Your task to perform on an android device: open wifi settings Image 0: 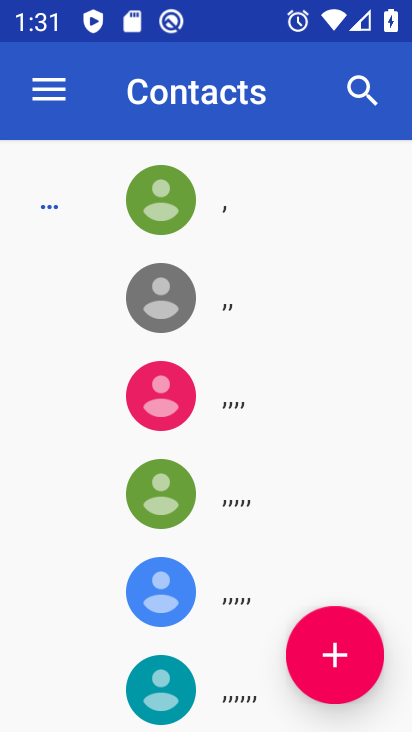
Step 0: press home button
Your task to perform on an android device: open wifi settings Image 1: 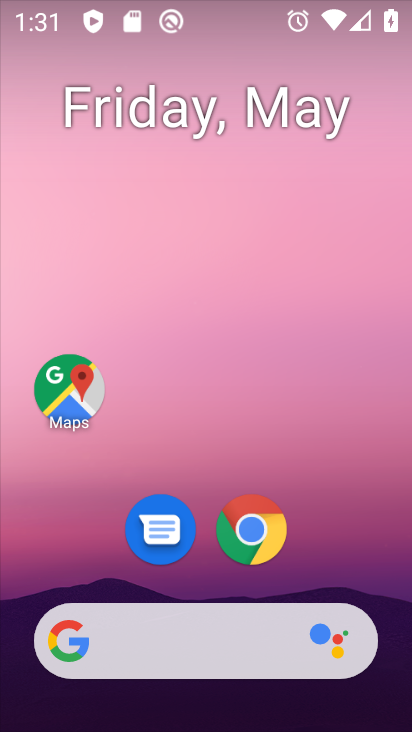
Step 1: drag from (397, 678) to (363, 360)
Your task to perform on an android device: open wifi settings Image 2: 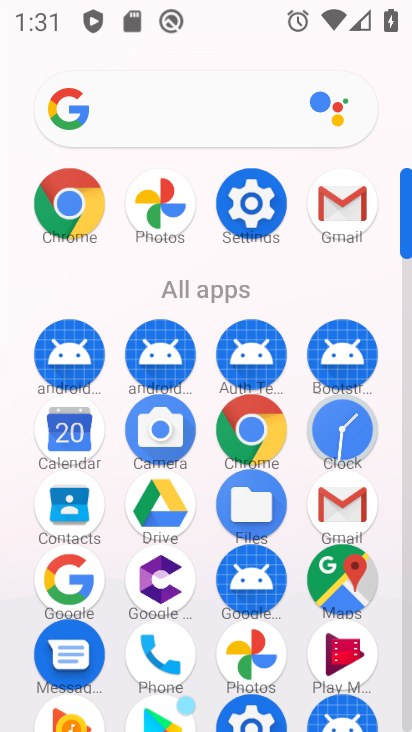
Step 2: click (250, 206)
Your task to perform on an android device: open wifi settings Image 3: 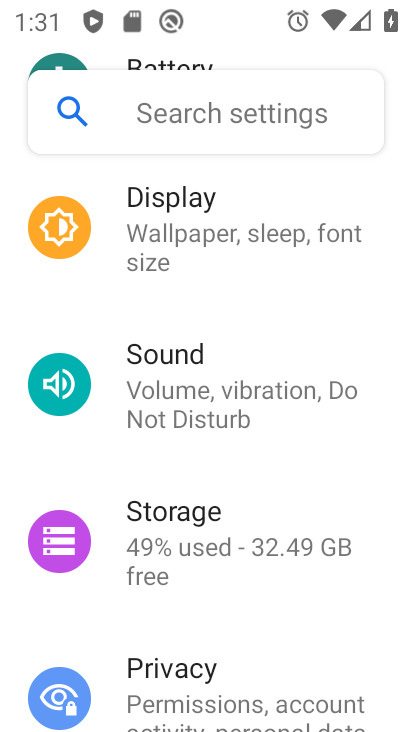
Step 3: drag from (377, 181) to (321, 655)
Your task to perform on an android device: open wifi settings Image 4: 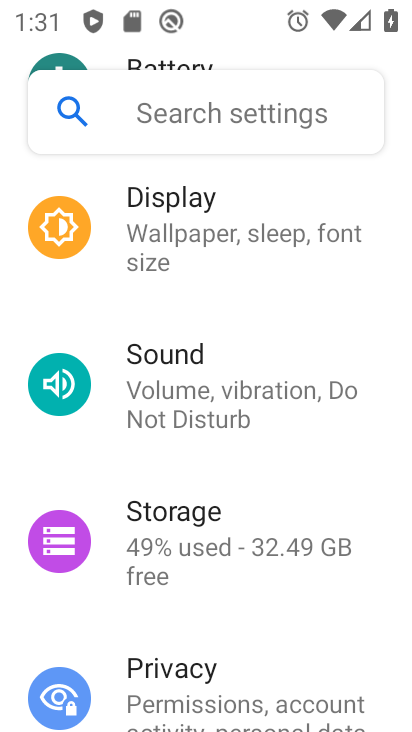
Step 4: drag from (355, 172) to (348, 667)
Your task to perform on an android device: open wifi settings Image 5: 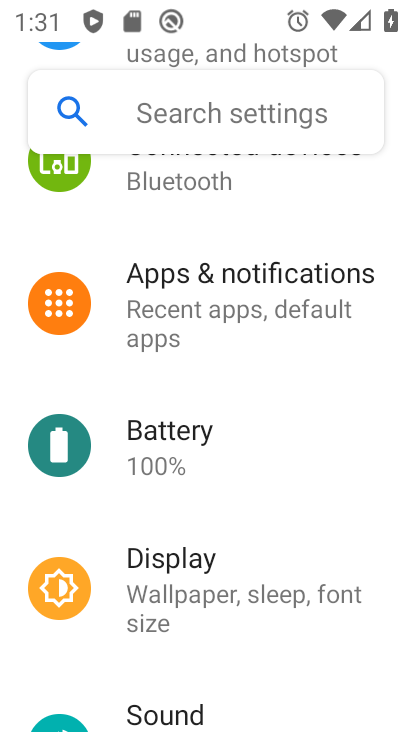
Step 5: drag from (355, 223) to (383, 711)
Your task to perform on an android device: open wifi settings Image 6: 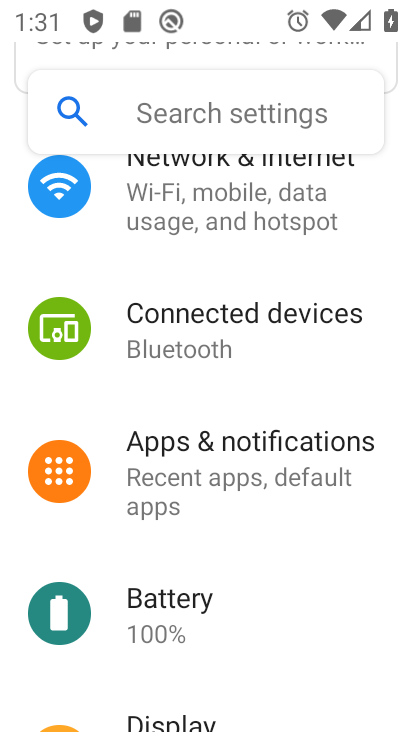
Step 6: drag from (371, 253) to (363, 629)
Your task to perform on an android device: open wifi settings Image 7: 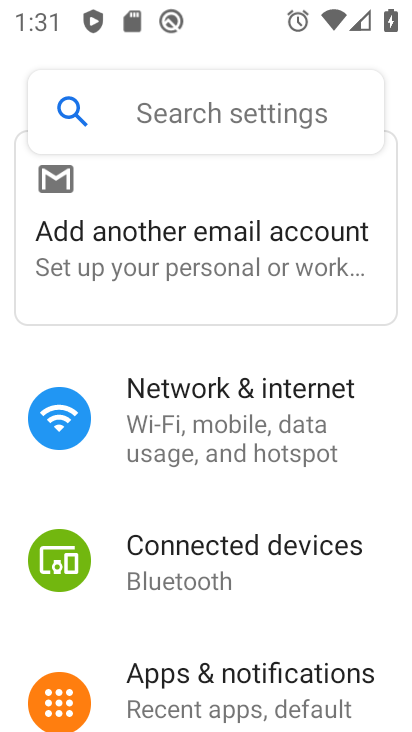
Step 7: click (211, 398)
Your task to perform on an android device: open wifi settings Image 8: 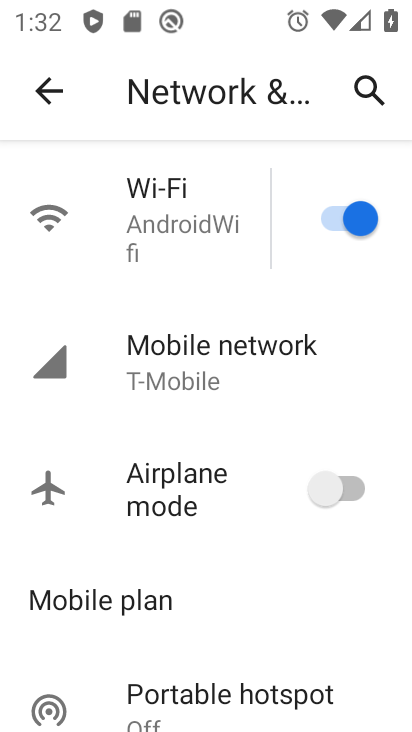
Step 8: task complete